Your task to perform on an android device: Open settings Image 0: 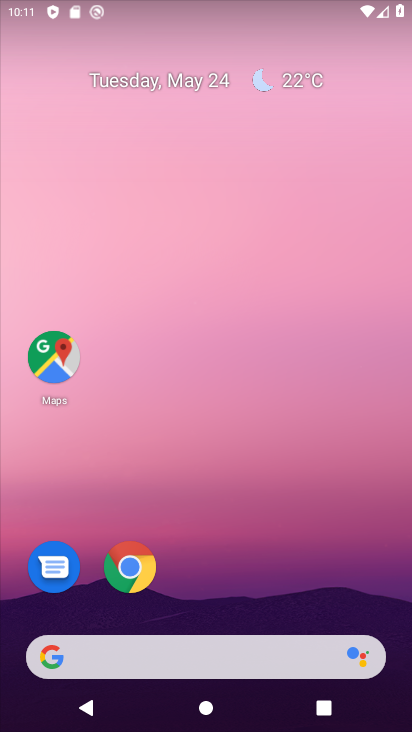
Step 0: drag from (339, 602) to (286, 109)
Your task to perform on an android device: Open settings Image 1: 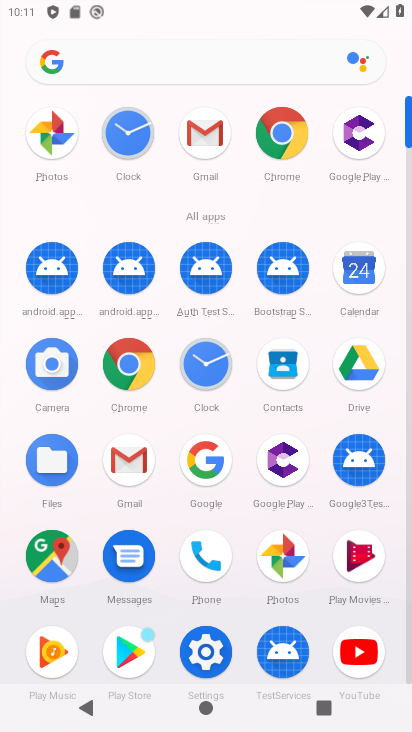
Step 1: drag from (153, 216) to (171, 21)
Your task to perform on an android device: Open settings Image 2: 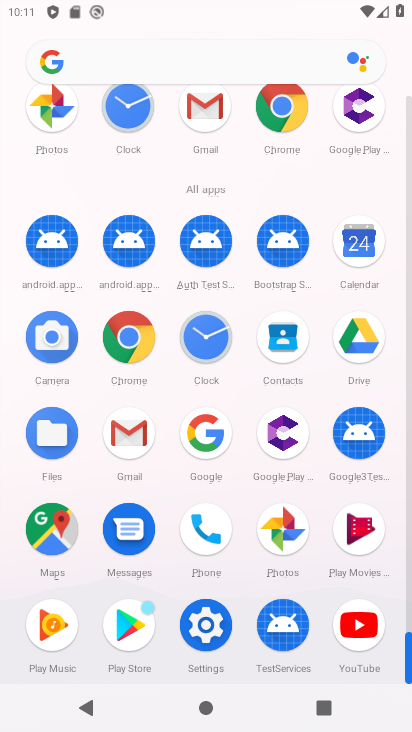
Step 2: click (214, 617)
Your task to perform on an android device: Open settings Image 3: 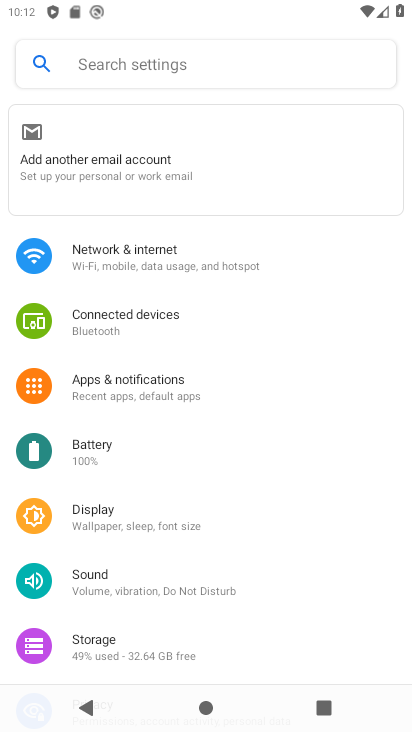
Step 3: task complete